Your task to perform on an android device: Go to Google maps Image 0: 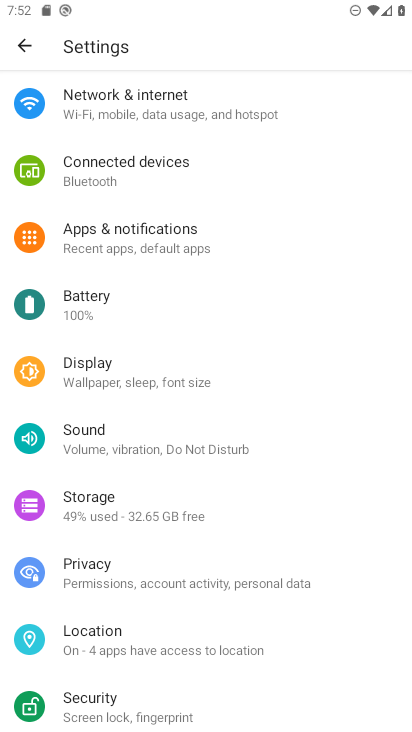
Step 0: press home button
Your task to perform on an android device: Go to Google maps Image 1: 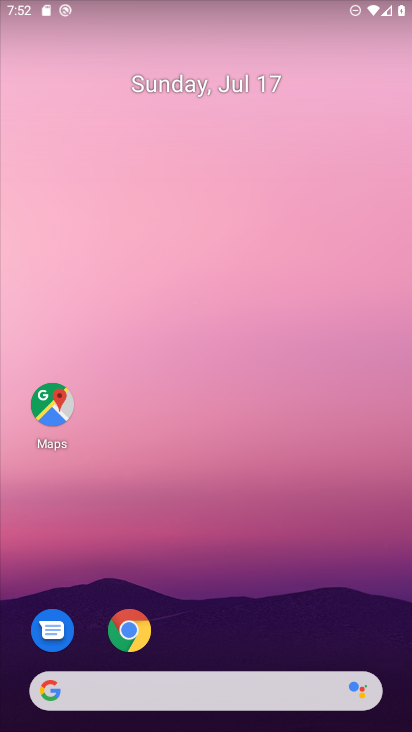
Step 1: click (44, 413)
Your task to perform on an android device: Go to Google maps Image 2: 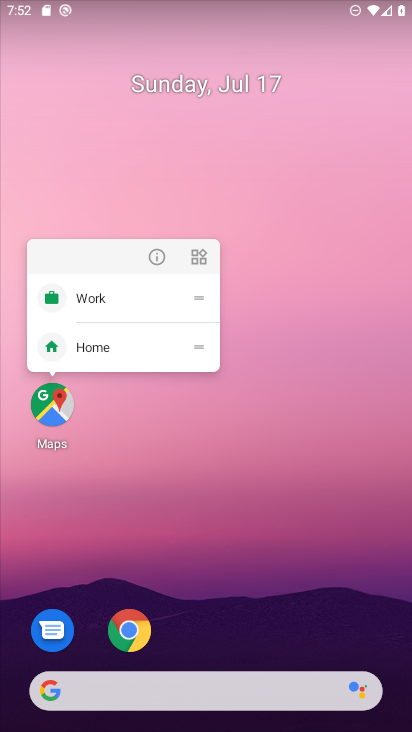
Step 2: click (44, 413)
Your task to perform on an android device: Go to Google maps Image 3: 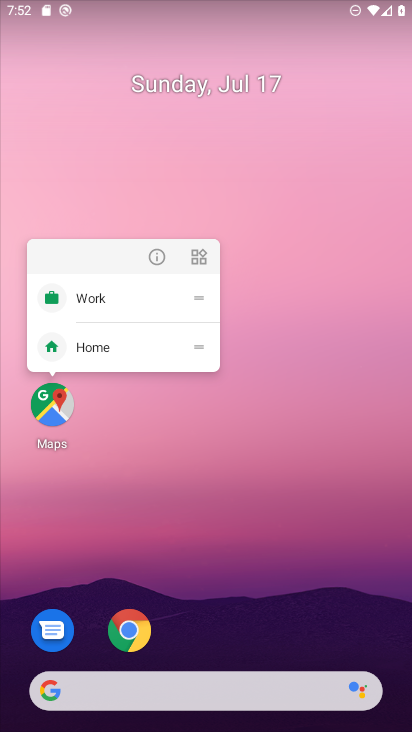
Step 3: click (44, 413)
Your task to perform on an android device: Go to Google maps Image 4: 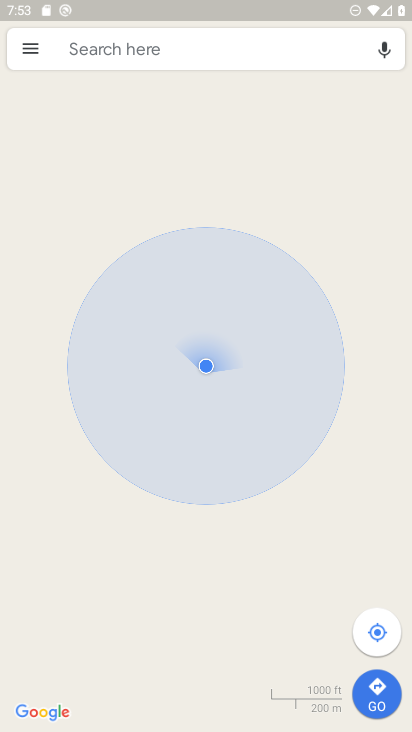
Step 4: task complete